Your task to perform on an android device: Search for 24"x36" picture frame on Home Depot. Image 0: 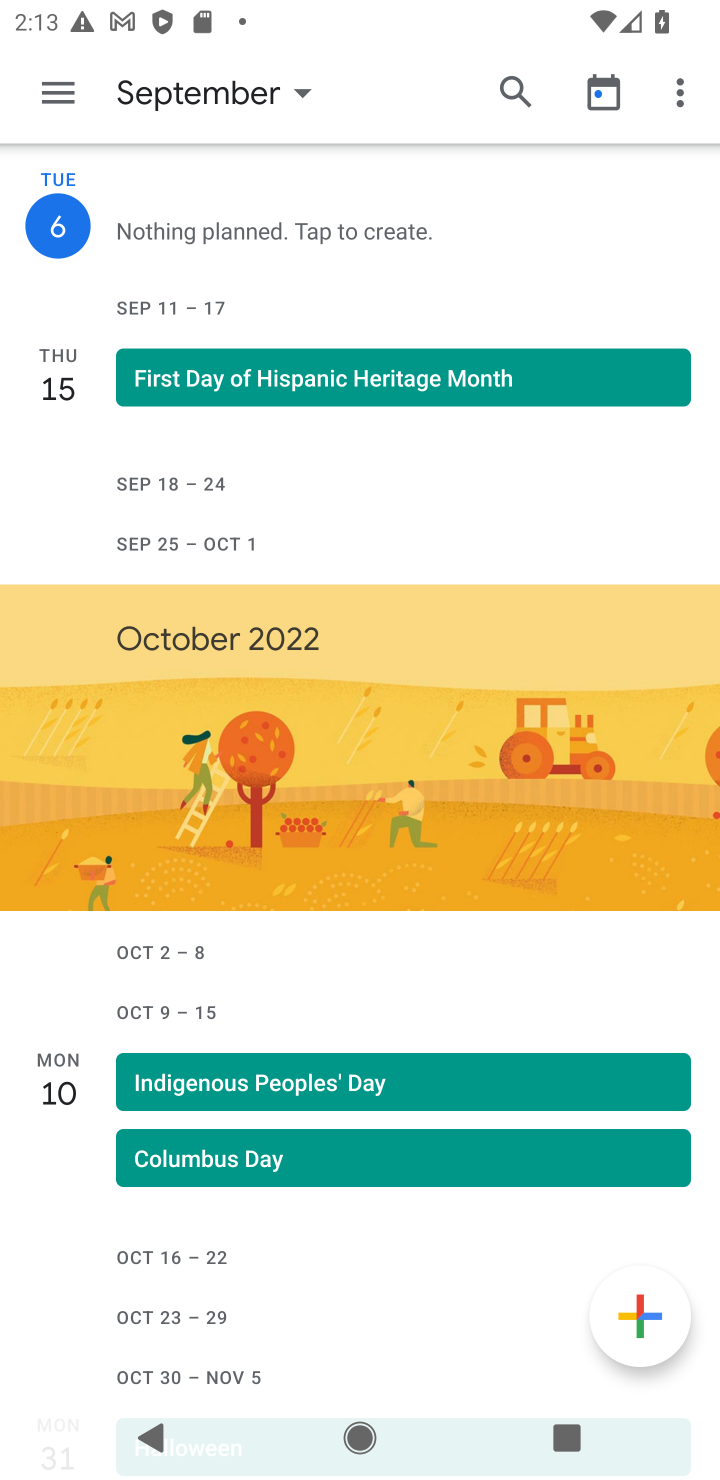
Step 0: press home button
Your task to perform on an android device: Search for 24"x36" picture frame on Home Depot. Image 1: 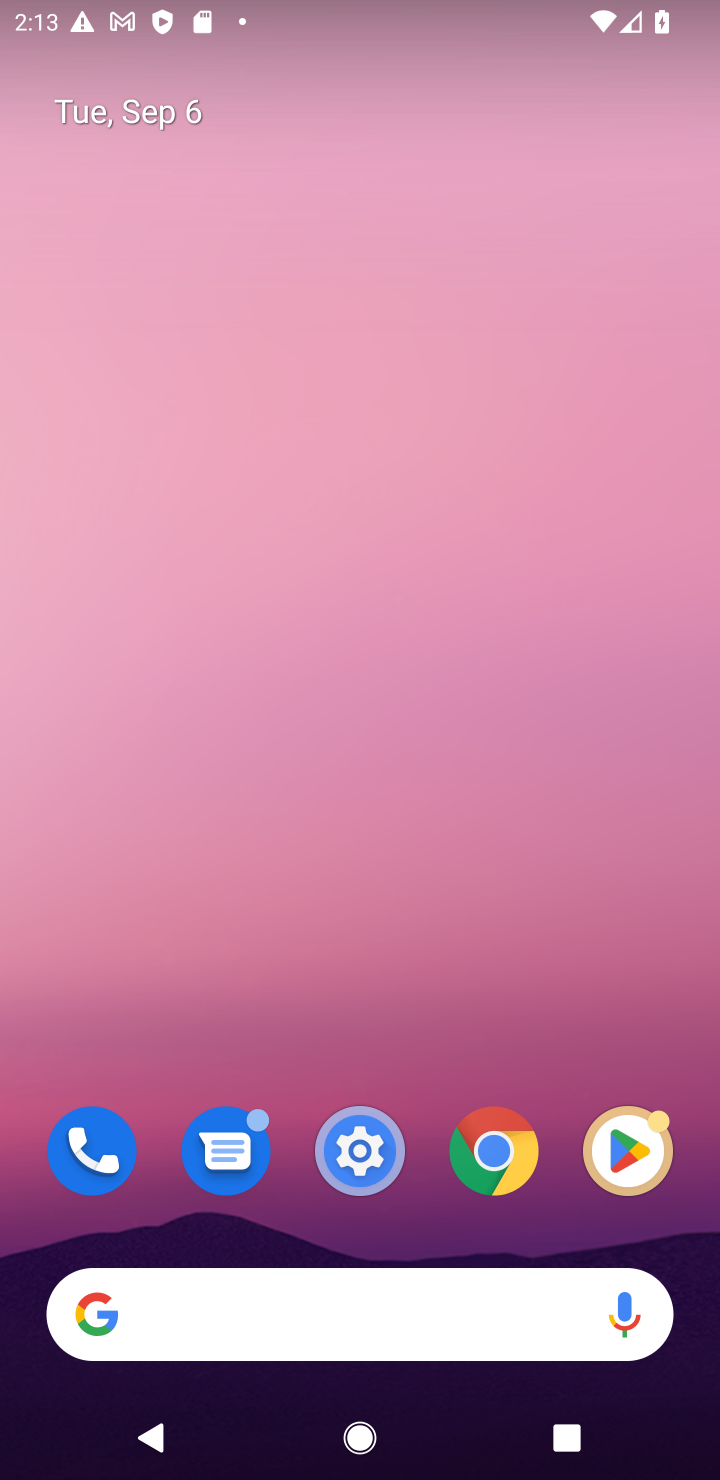
Step 1: click (619, 353)
Your task to perform on an android device: Search for 24"x36" picture frame on Home Depot. Image 2: 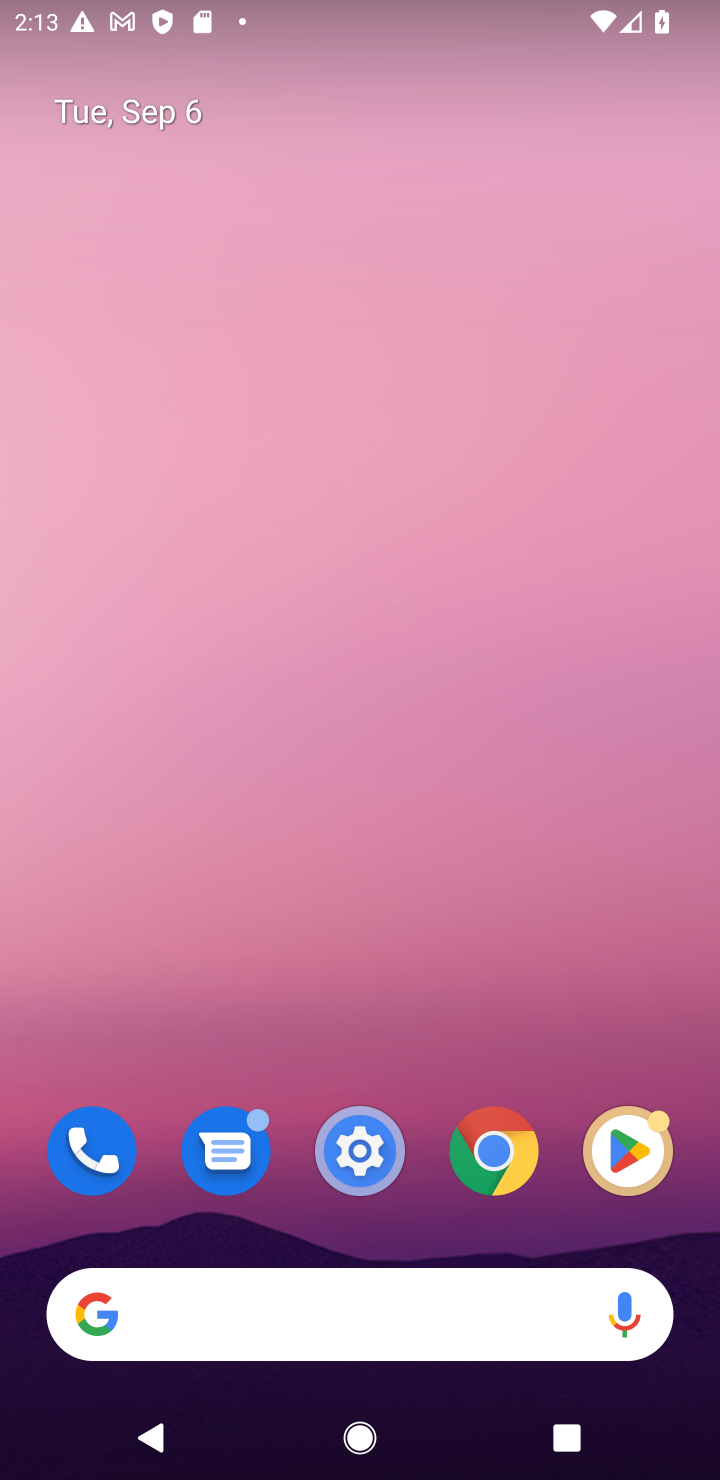
Step 2: drag from (577, 405) to (582, 293)
Your task to perform on an android device: Search for 24"x36" picture frame on Home Depot. Image 3: 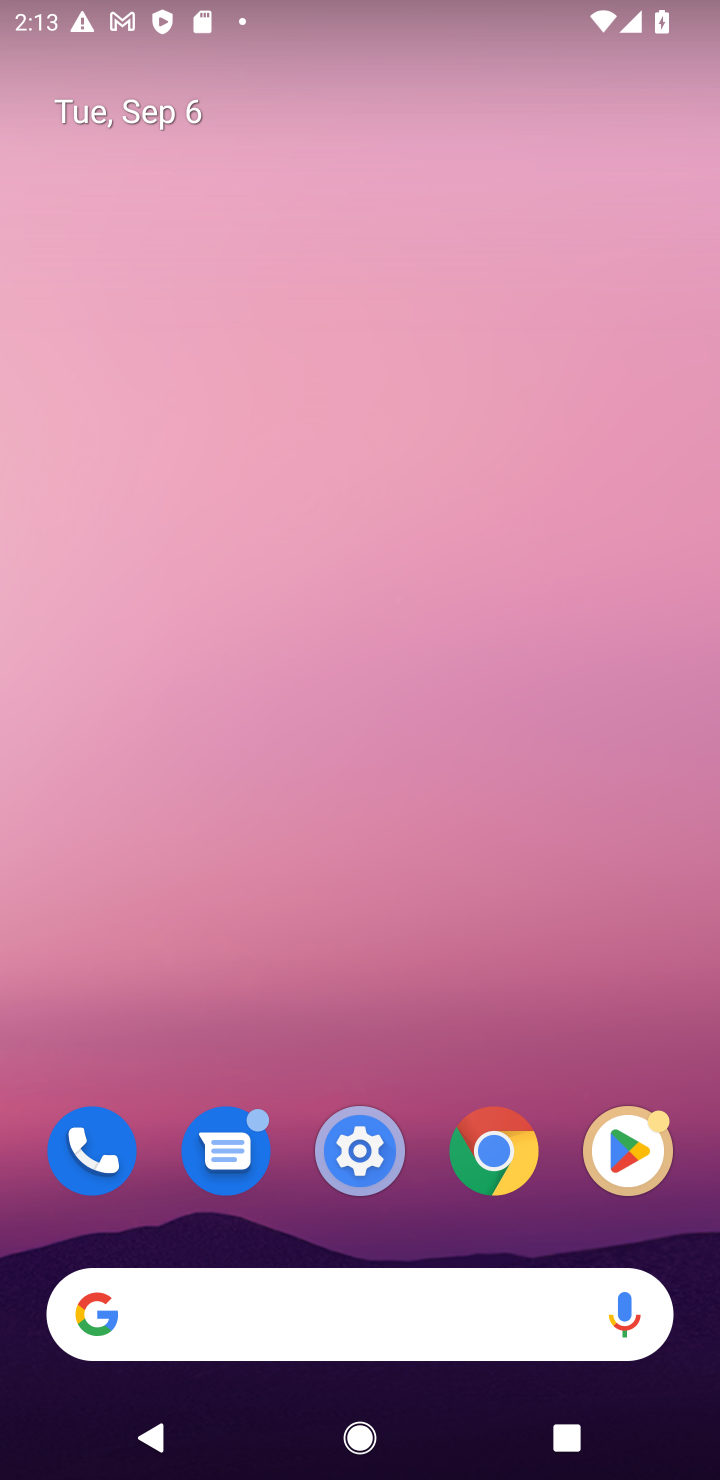
Step 3: click (387, 510)
Your task to perform on an android device: Search for 24"x36" picture frame on Home Depot. Image 4: 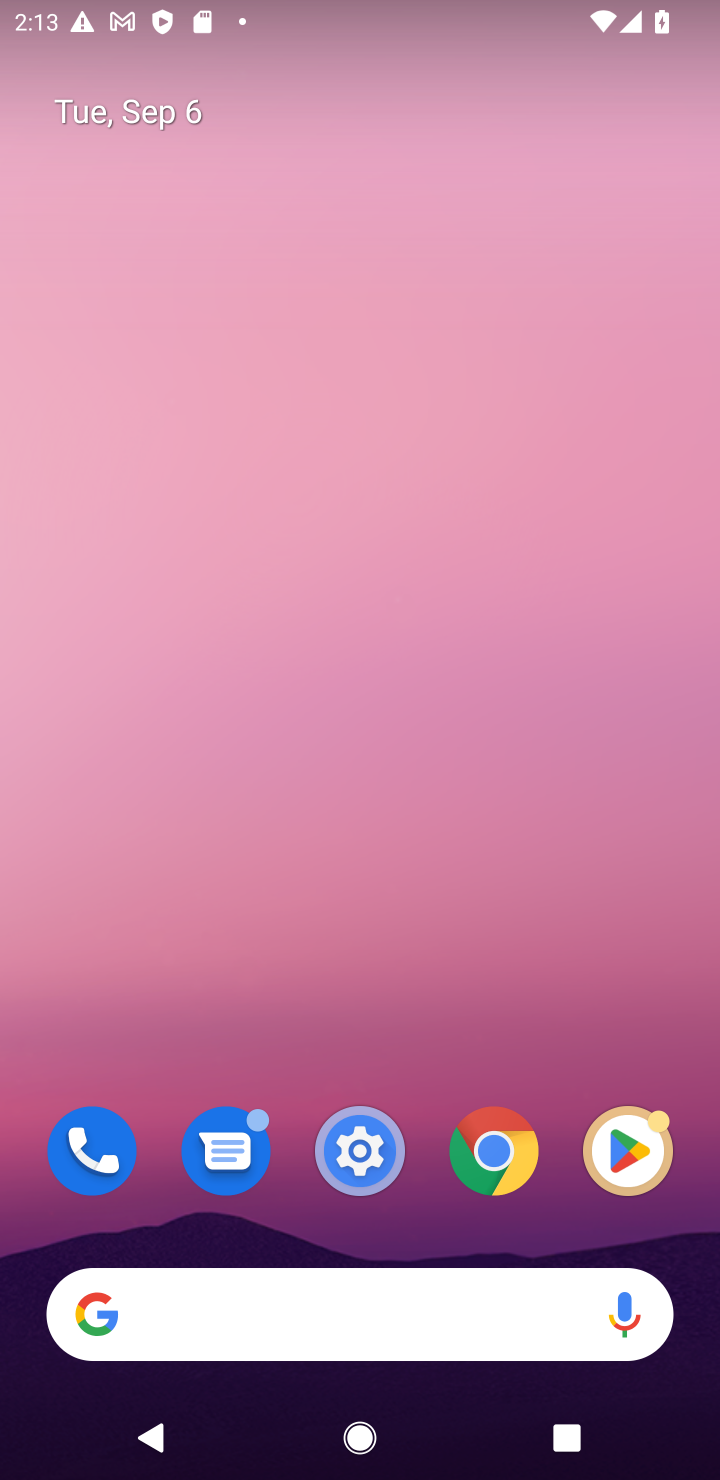
Step 4: drag from (282, 1171) to (426, 342)
Your task to perform on an android device: Search for 24"x36" picture frame on Home Depot. Image 5: 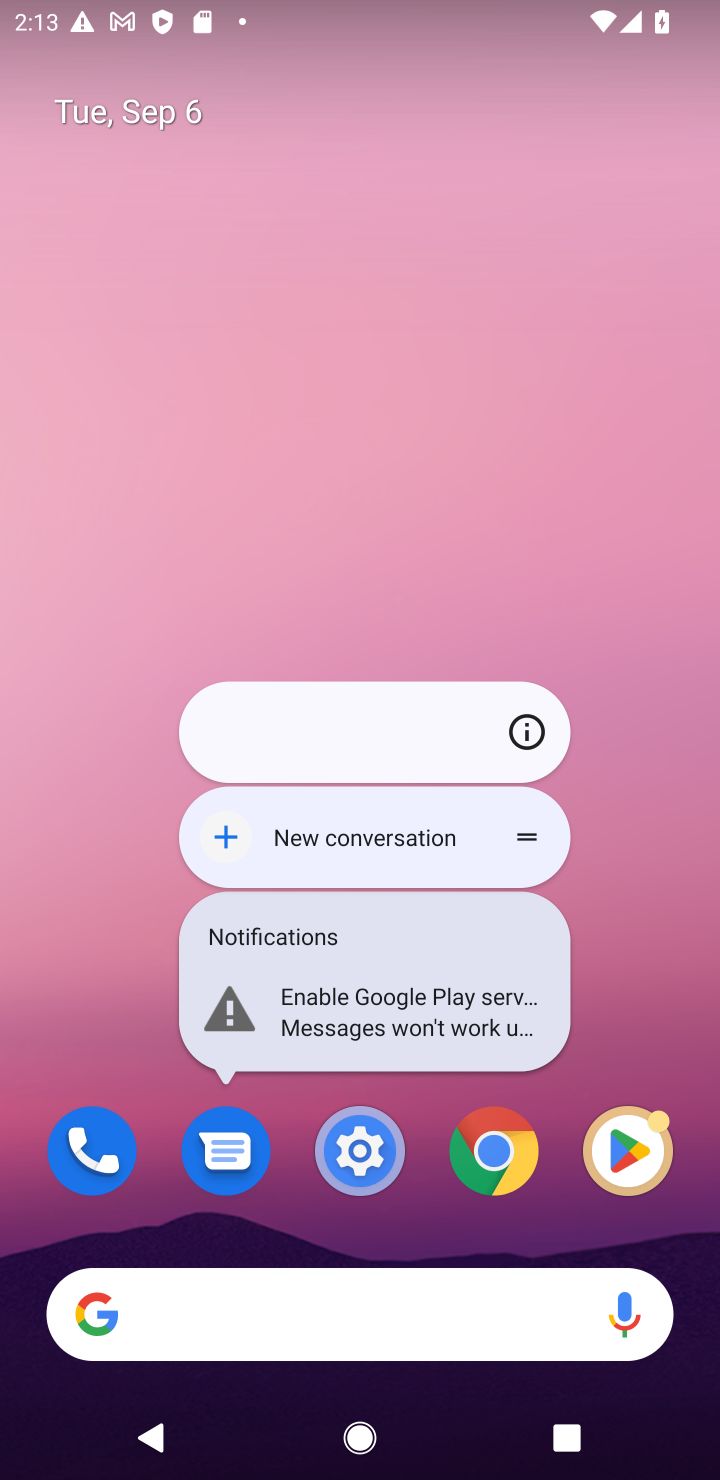
Step 5: click (645, 767)
Your task to perform on an android device: Search for 24"x36" picture frame on Home Depot. Image 6: 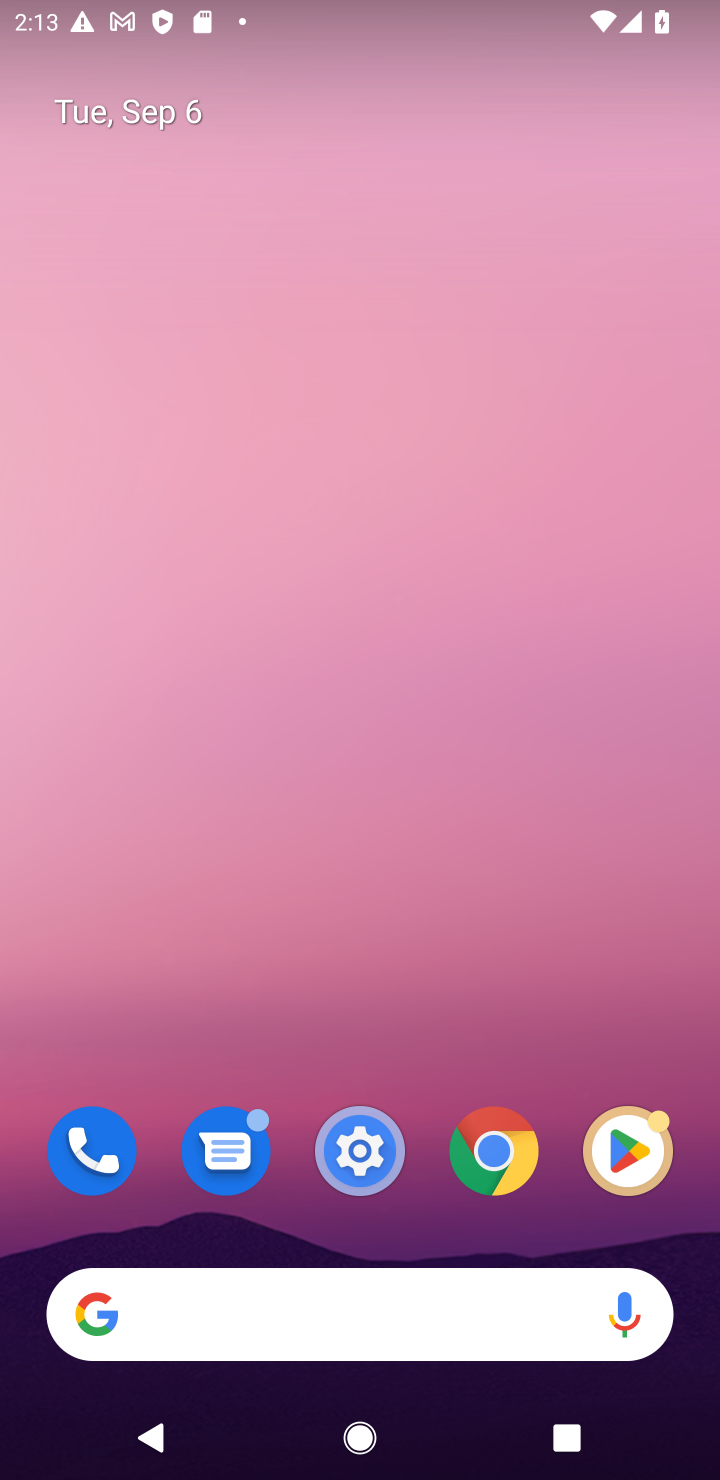
Step 6: drag from (707, 925) to (394, 216)
Your task to perform on an android device: Search for 24"x36" picture frame on Home Depot. Image 7: 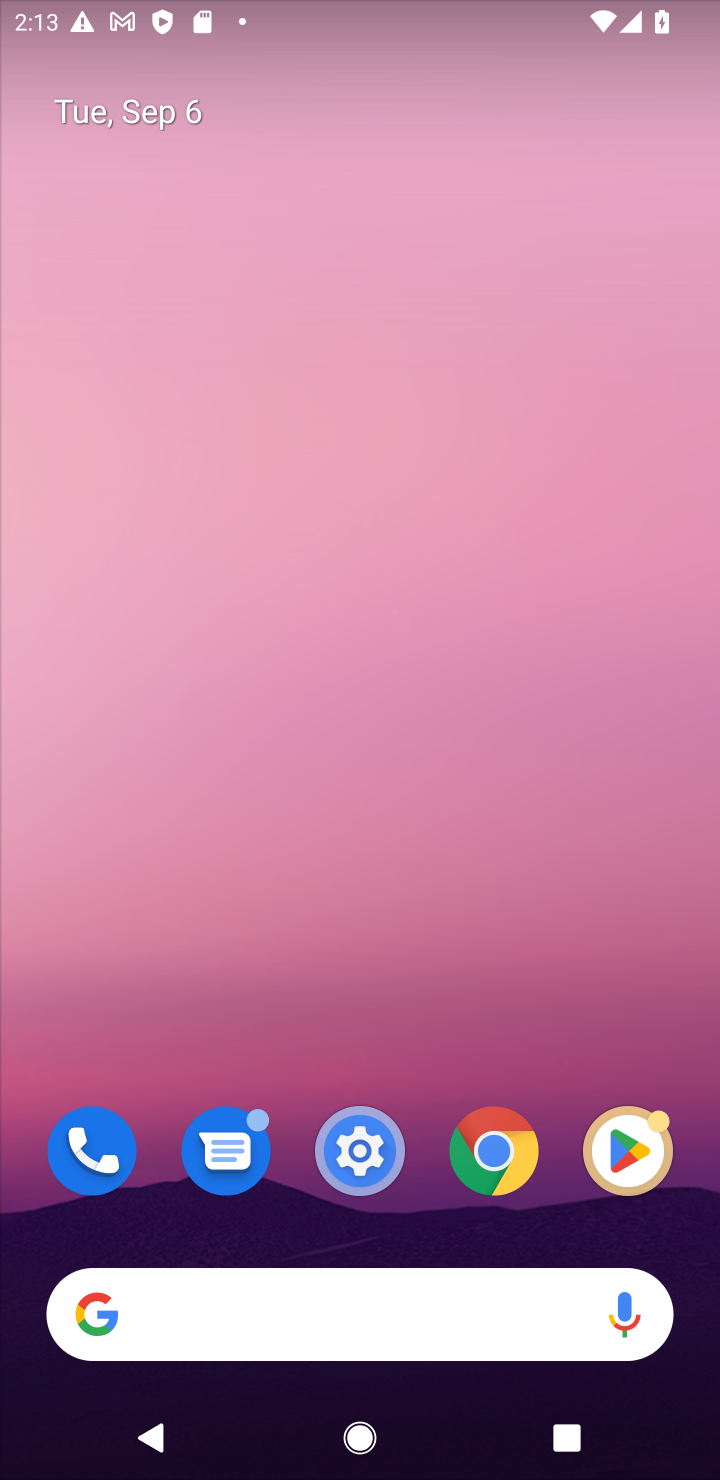
Step 7: drag from (387, 1187) to (414, 418)
Your task to perform on an android device: Search for 24"x36" picture frame on Home Depot. Image 8: 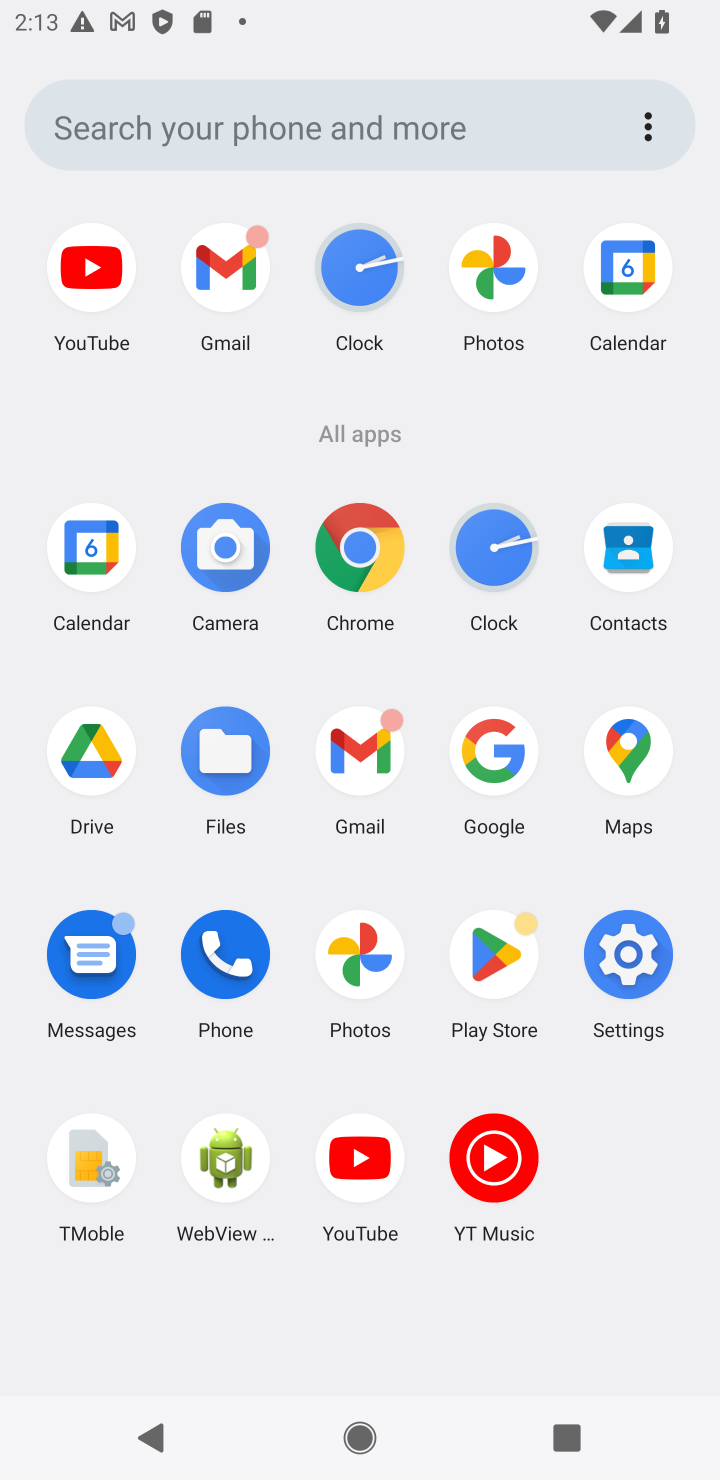
Step 8: click (476, 744)
Your task to perform on an android device: Search for 24"x36" picture frame on Home Depot. Image 9: 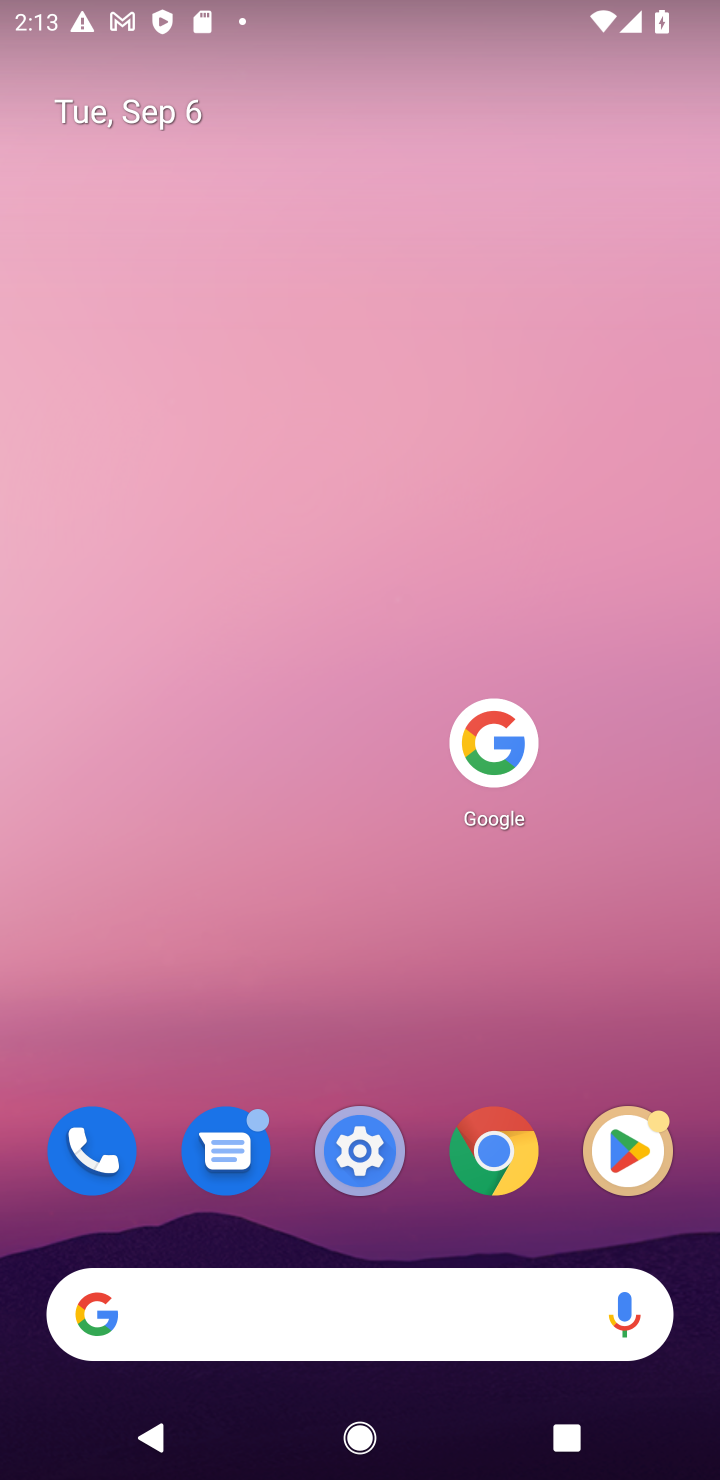
Step 9: click (473, 742)
Your task to perform on an android device: Search for 24"x36" picture frame on Home Depot. Image 10: 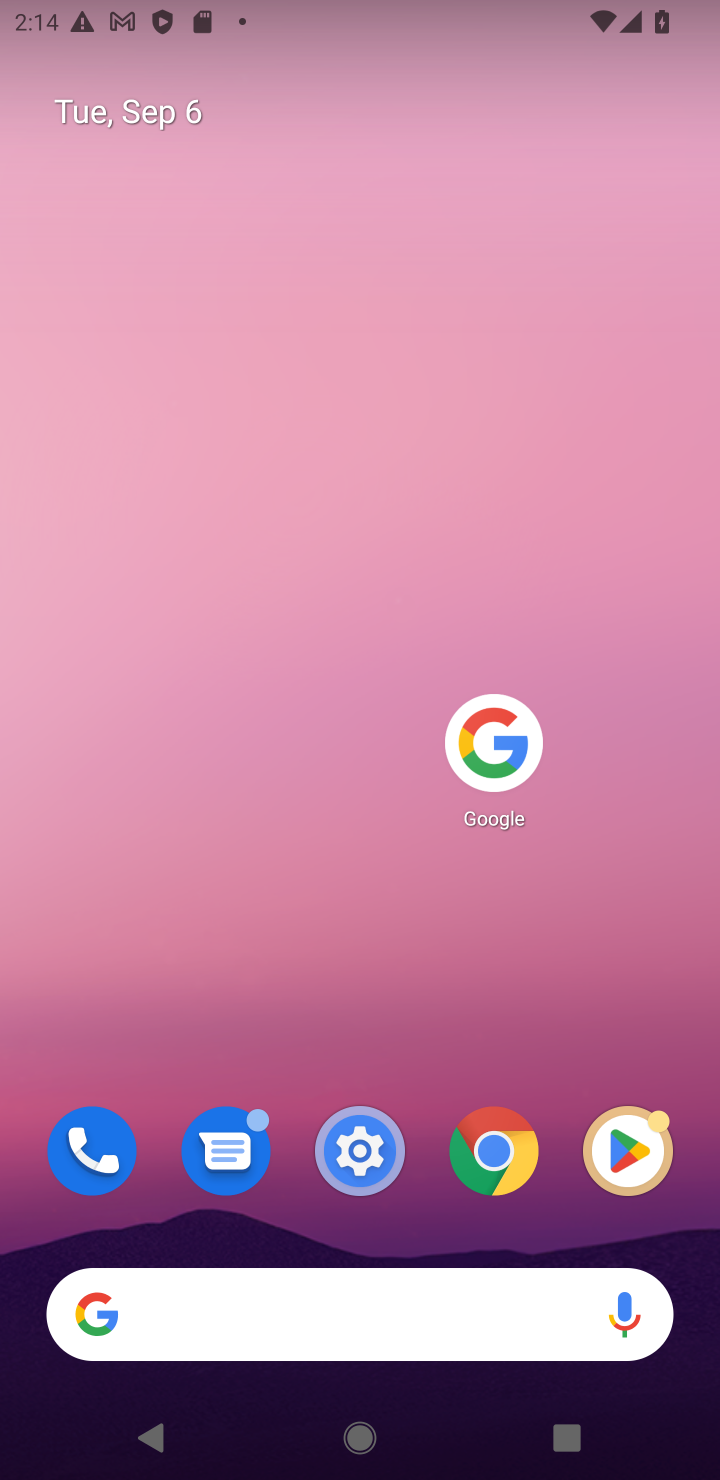
Step 10: click (501, 756)
Your task to perform on an android device: Search for 24"x36" picture frame on Home Depot. Image 11: 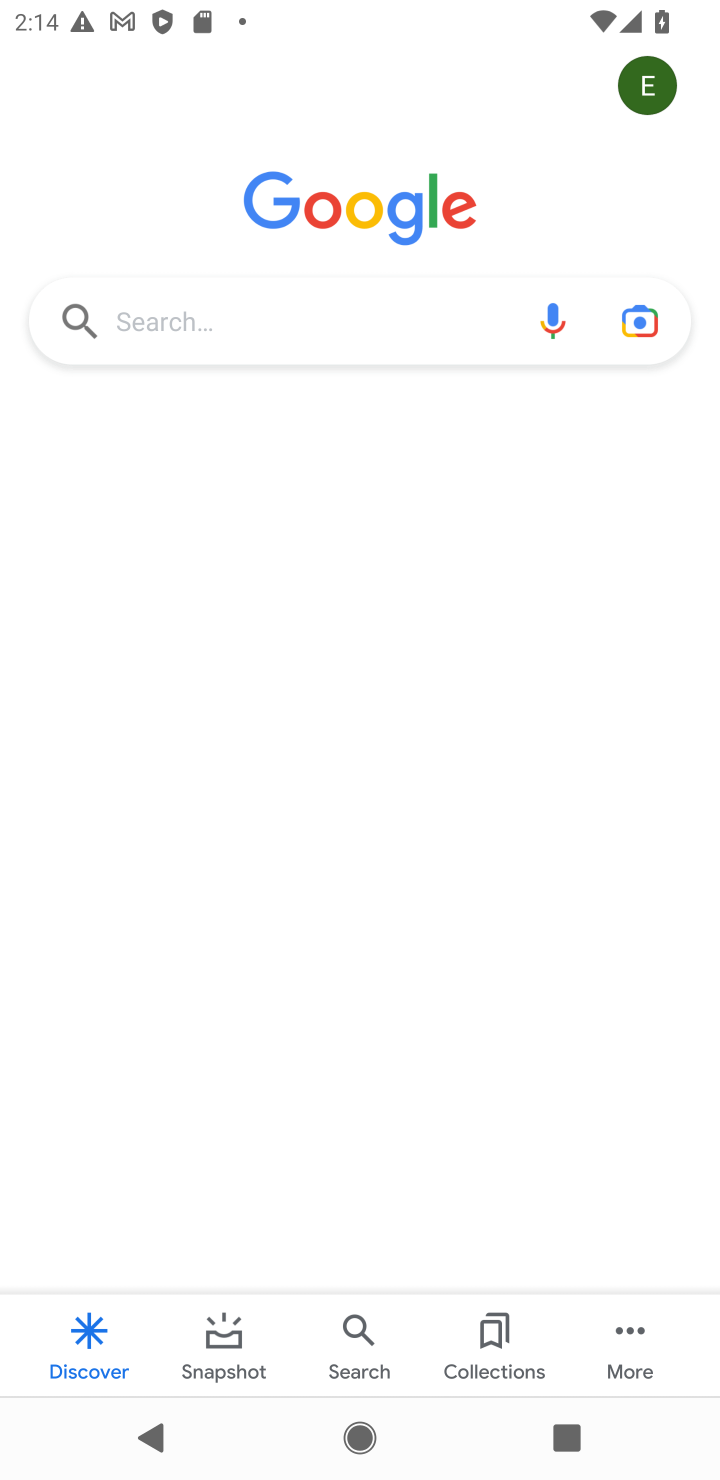
Step 11: click (232, 286)
Your task to perform on an android device: Search for 24"x36" picture frame on Home Depot. Image 12: 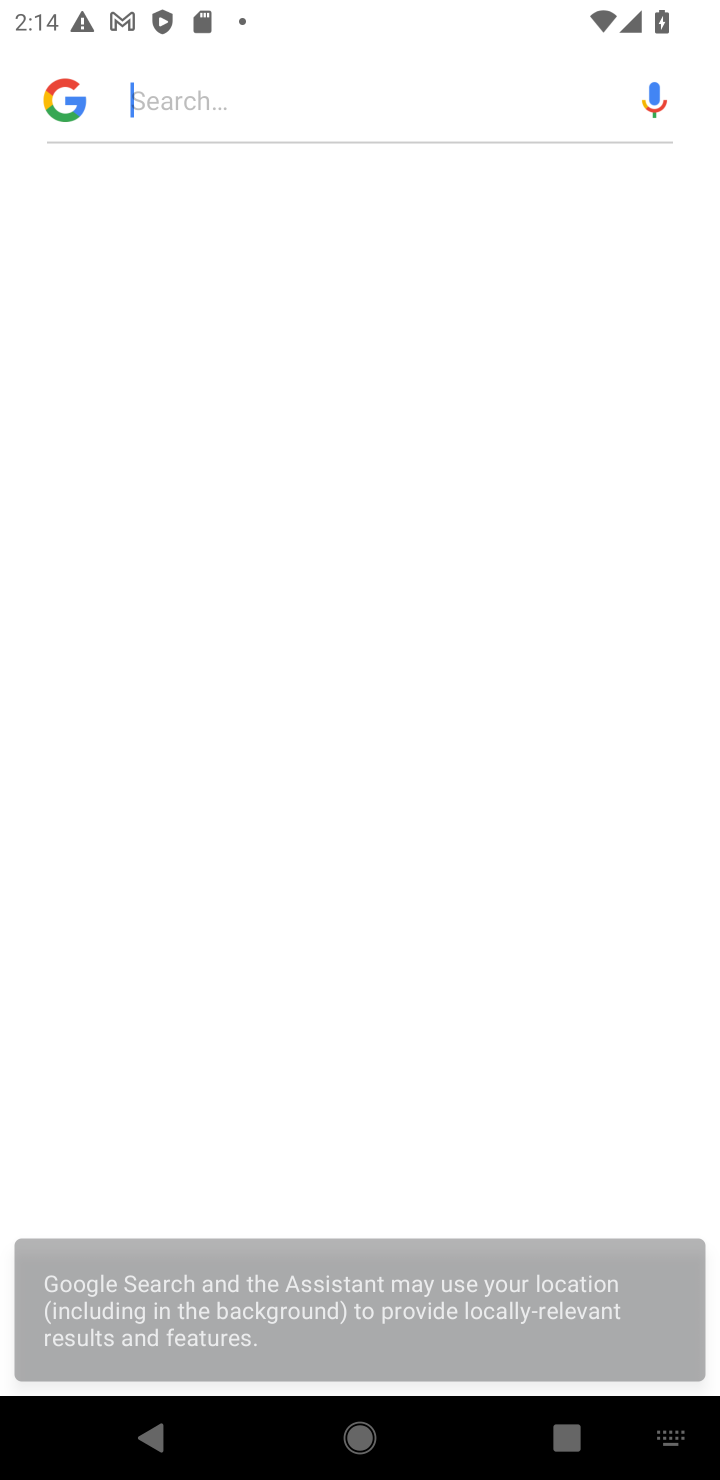
Step 12: type "24"x36" picture frame on Home Depot "
Your task to perform on an android device: Search for 24"x36" picture frame on Home Depot. Image 13: 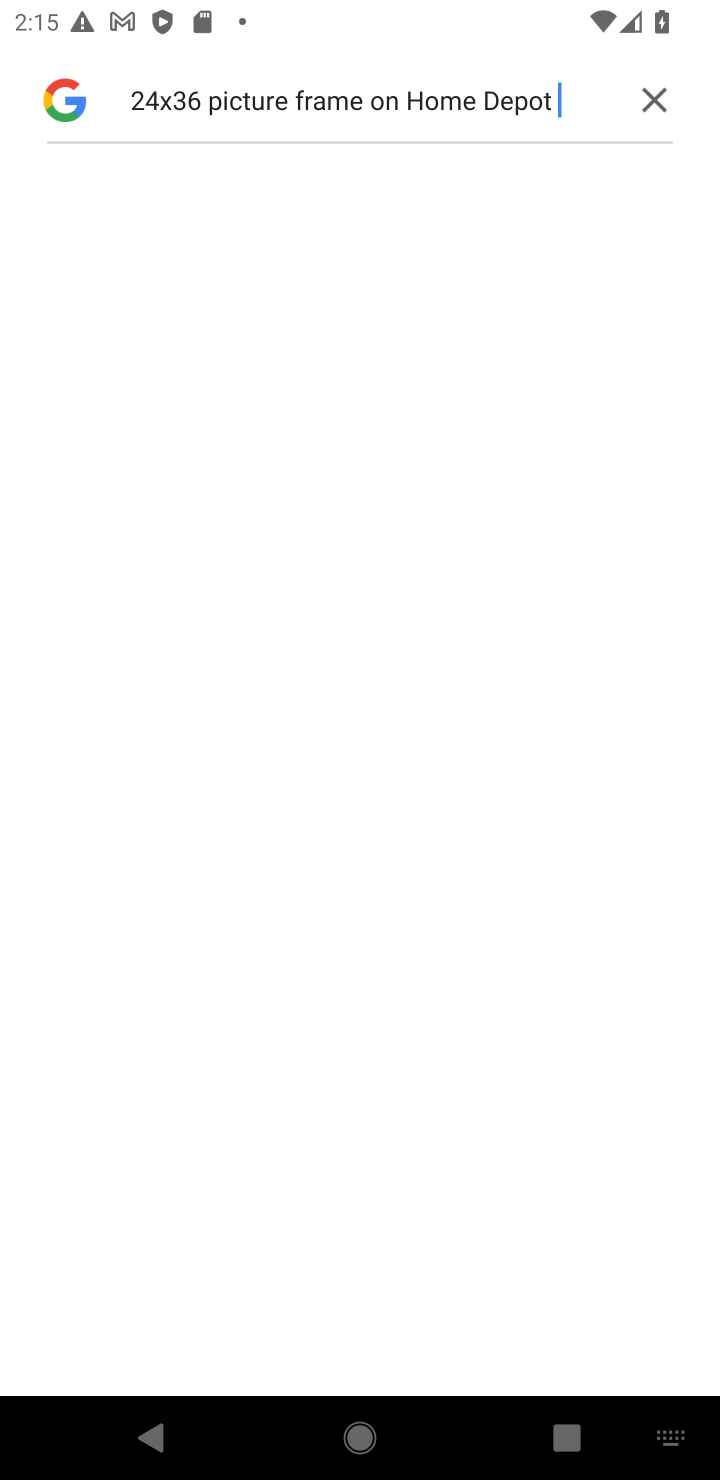
Step 13: click (528, 94)
Your task to perform on an android device: Search for 24"x36" picture frame on Home Depot. Image 14: 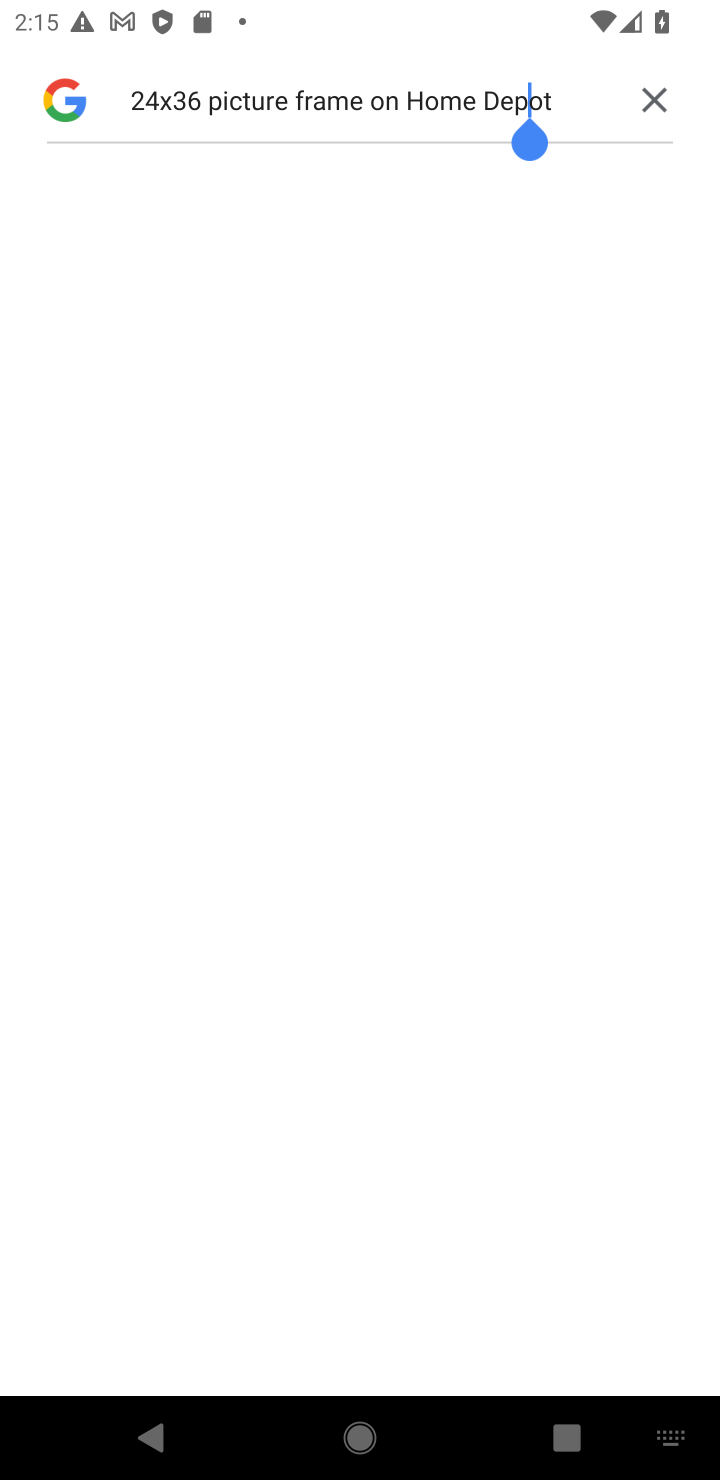
Step 14: click (644, 105)
Your task to perform on an android device: Search for 24"x36" picture frame on Home Depot. Image 15: 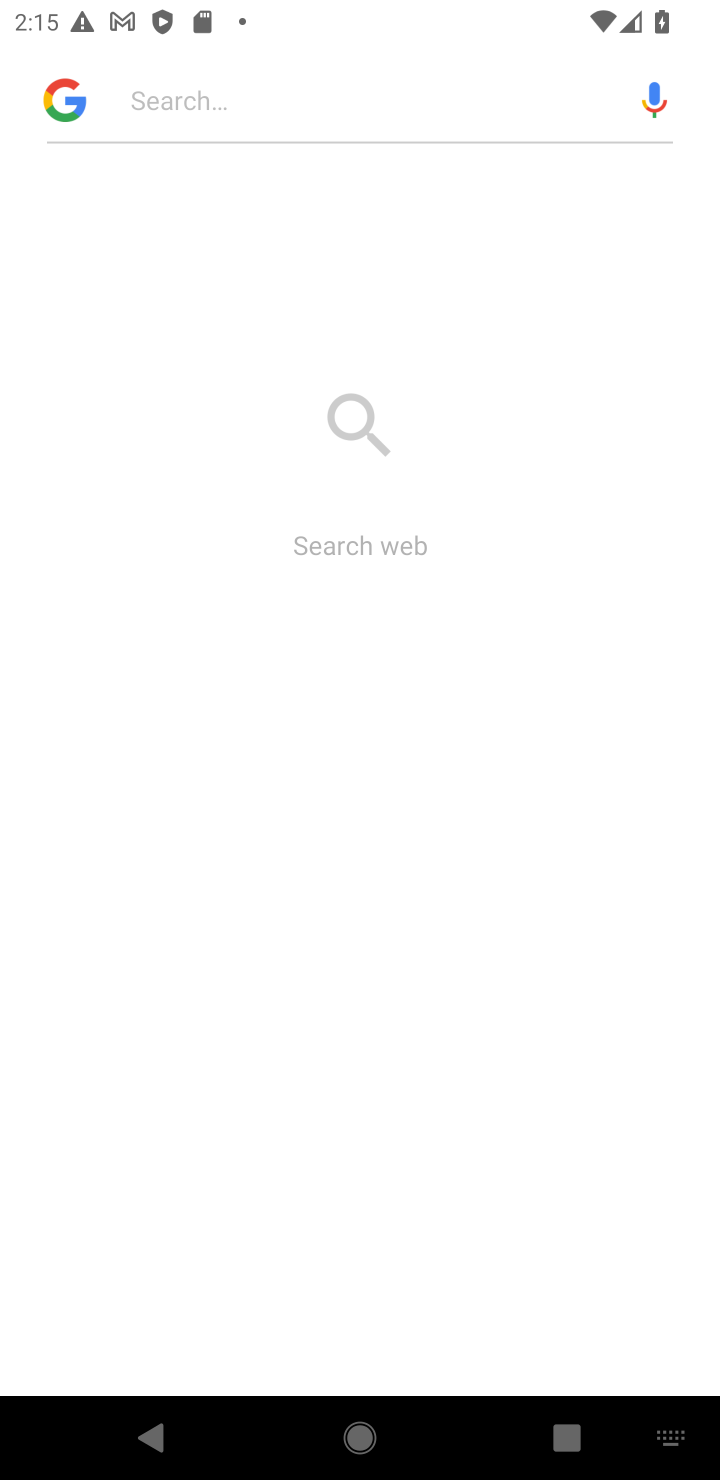
Step 15: click (259, 79)
Your task to perform on an android device: Search for 24"x36" picture frame on Home Depot. Image 16: 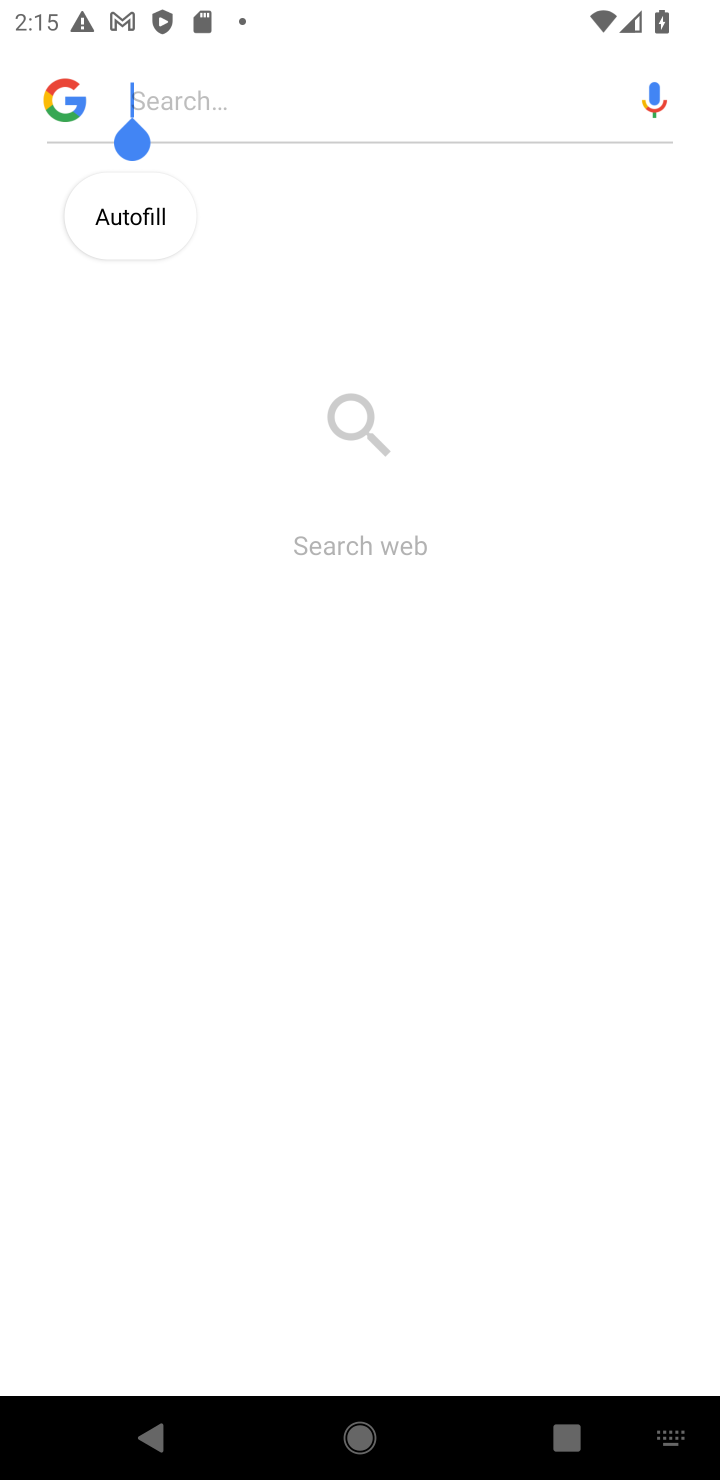
Step 16: type "24"x36" picture frame "
Your task to perform on an android device: Search for 24"x36" picture frame on Home Depot. Image 17: 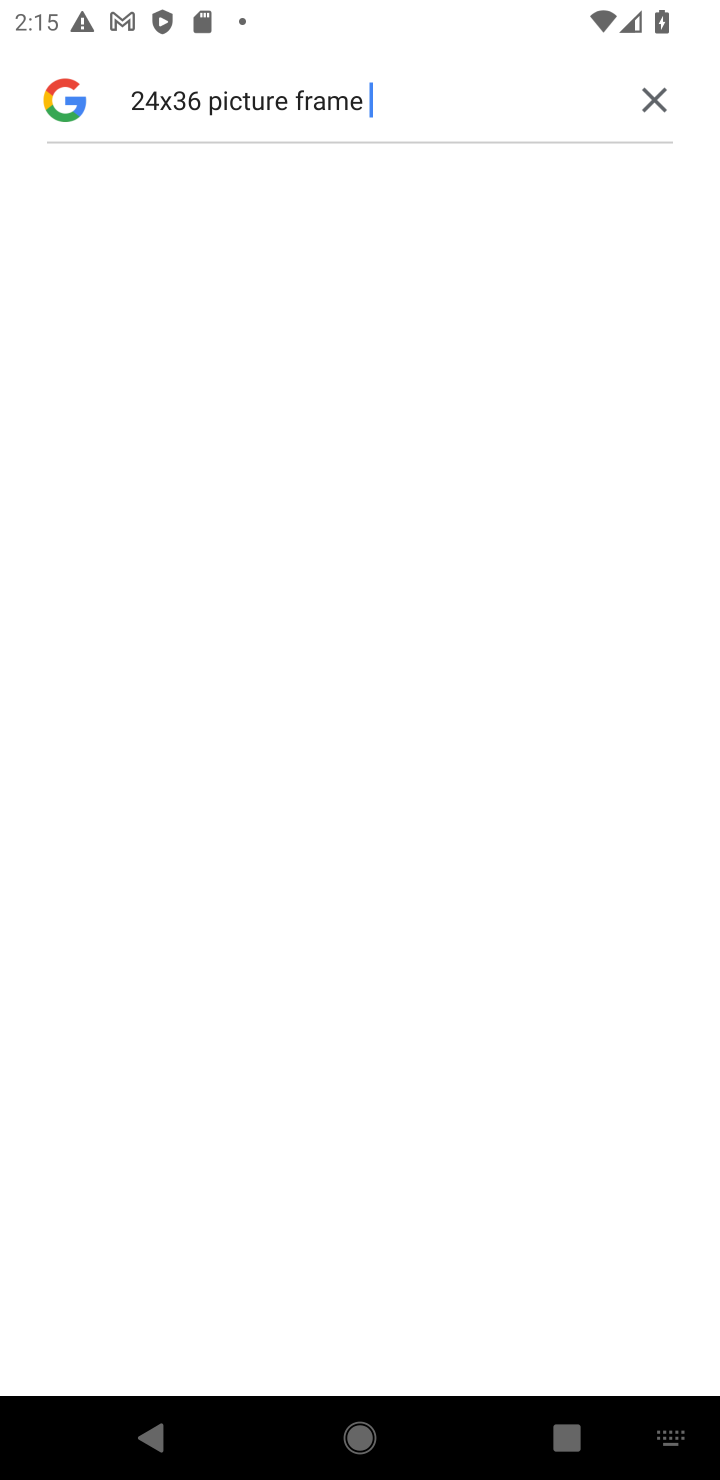
Step 17: task complete